Your task to perform on an android device: Search for "corsair k70" on amazon.com, select the first entry, and add it to the cart. Image 0: 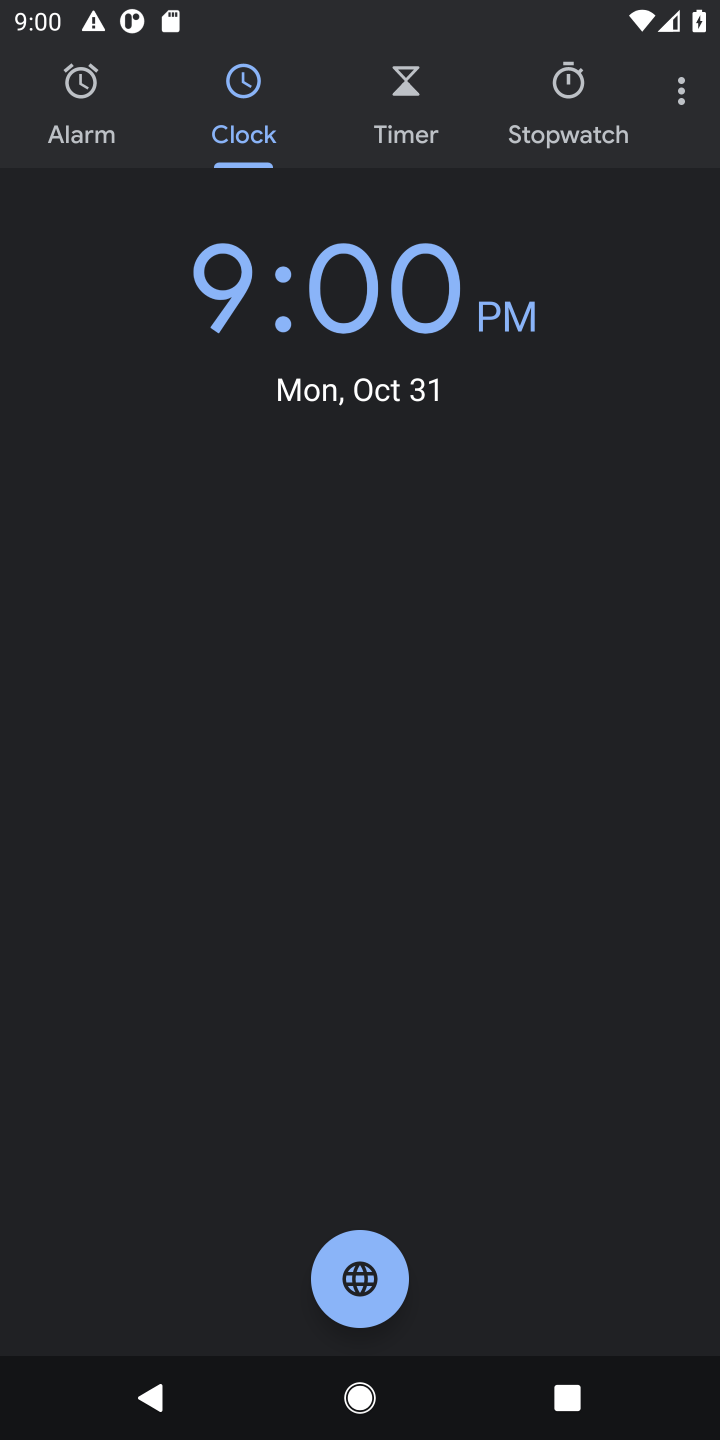
Step 0: press home button
Your task to perform on an android device: Search for "corsair k70" on amazon.com, select the first entry, and add it to the cart. Image 1: 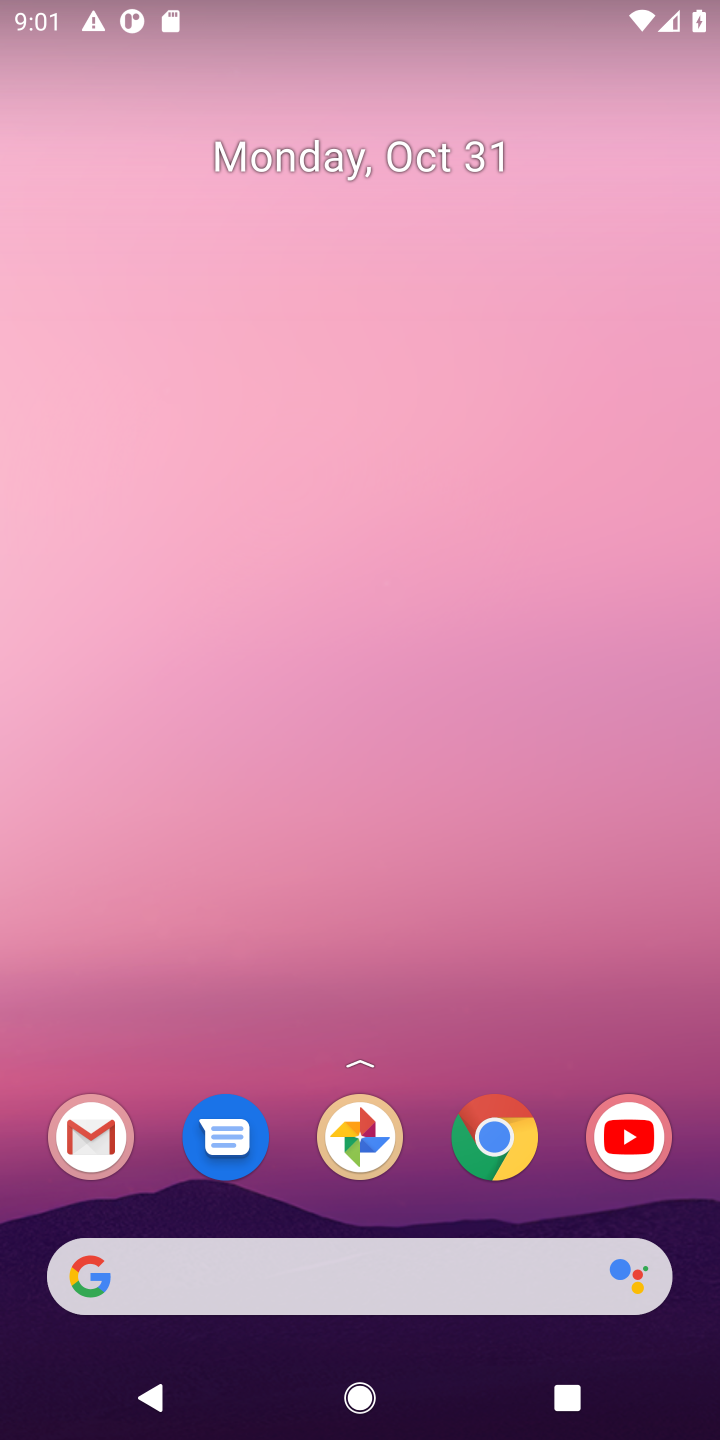
Step 1: click (486, 1142)
Your task to perform on an android device: Search for "corsair k70" on amazon.com, select the first entry, and add it to the cart. Image 2: 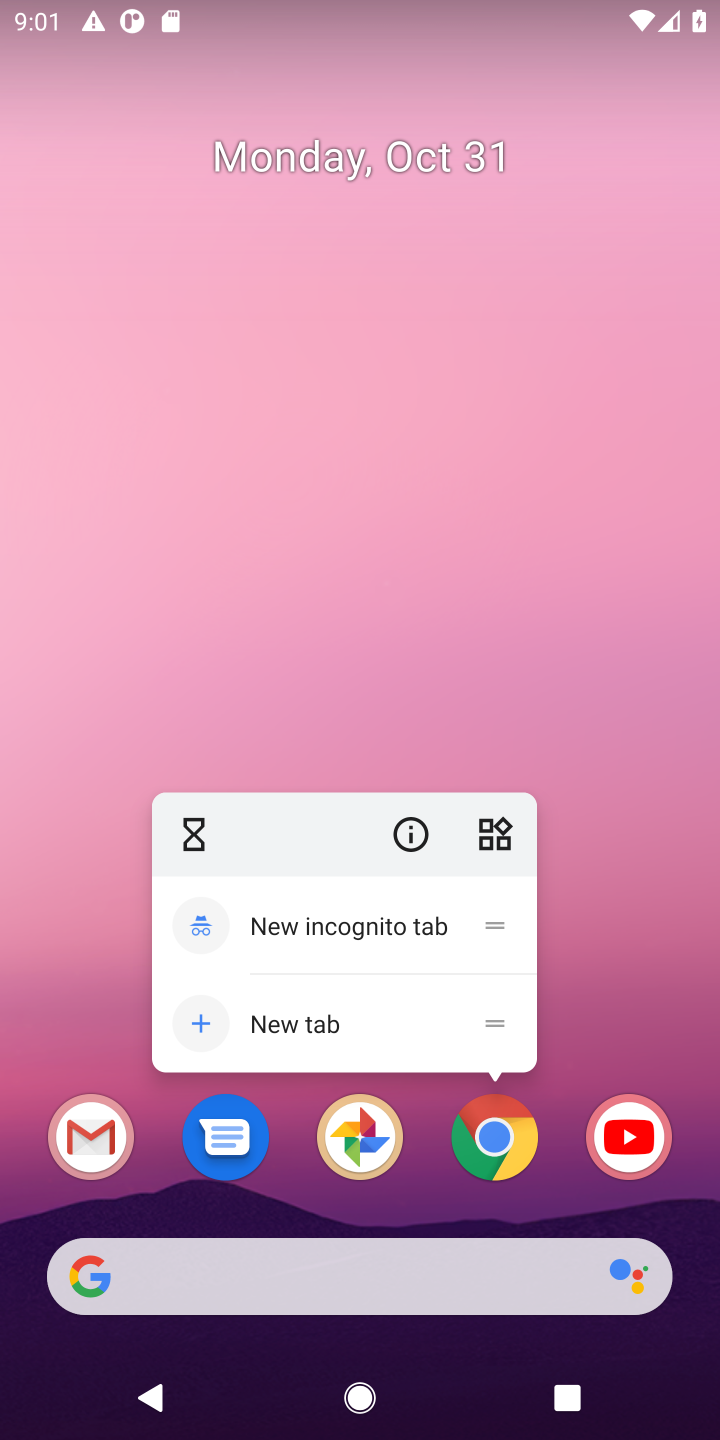
Step 2: click (486, 1142)
Your task to perform on an android device: Search for "corsair k70" on amazon.com, select the first entry, and add it to the cart. Image 3: 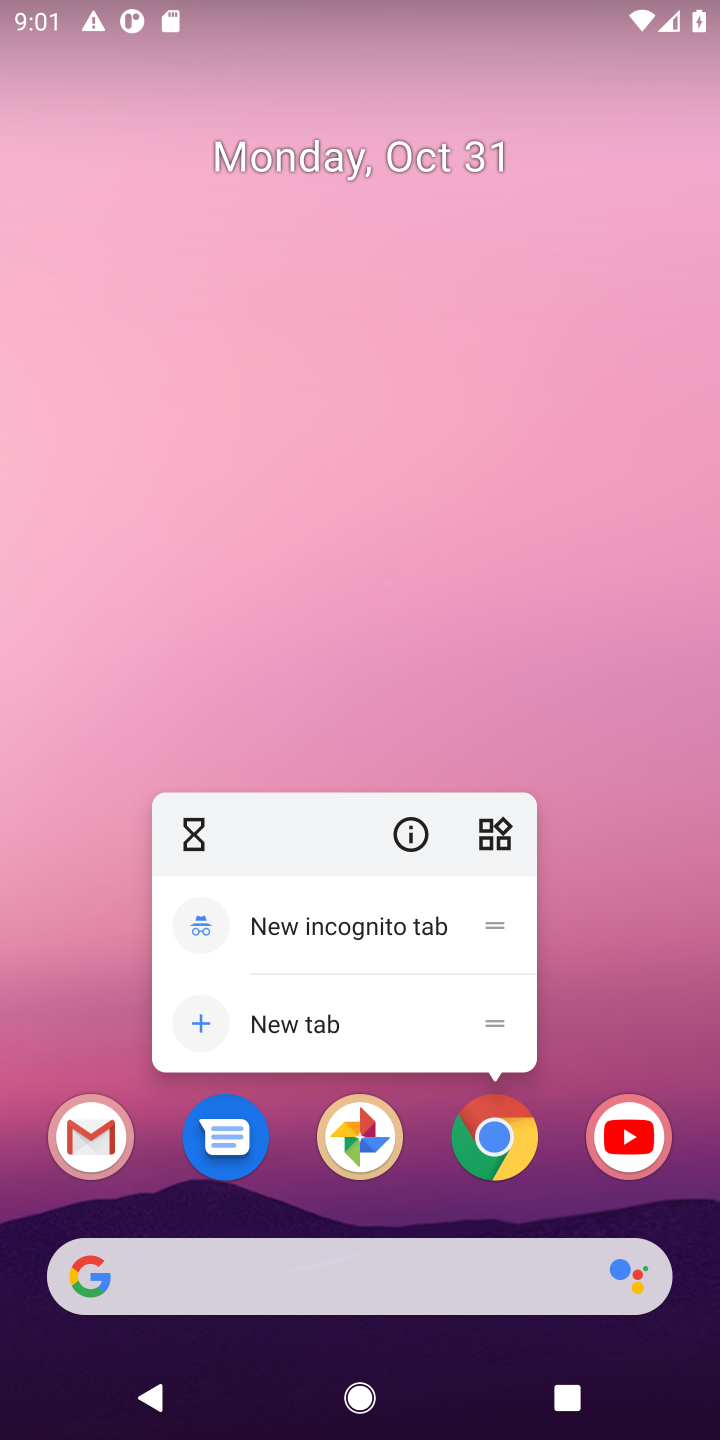
Step 3: click (495, 1163)
Your task to perform on an android device: Search for "corsair k70" on amazon.com, select the first entry, and add it to the cart. Image 4: 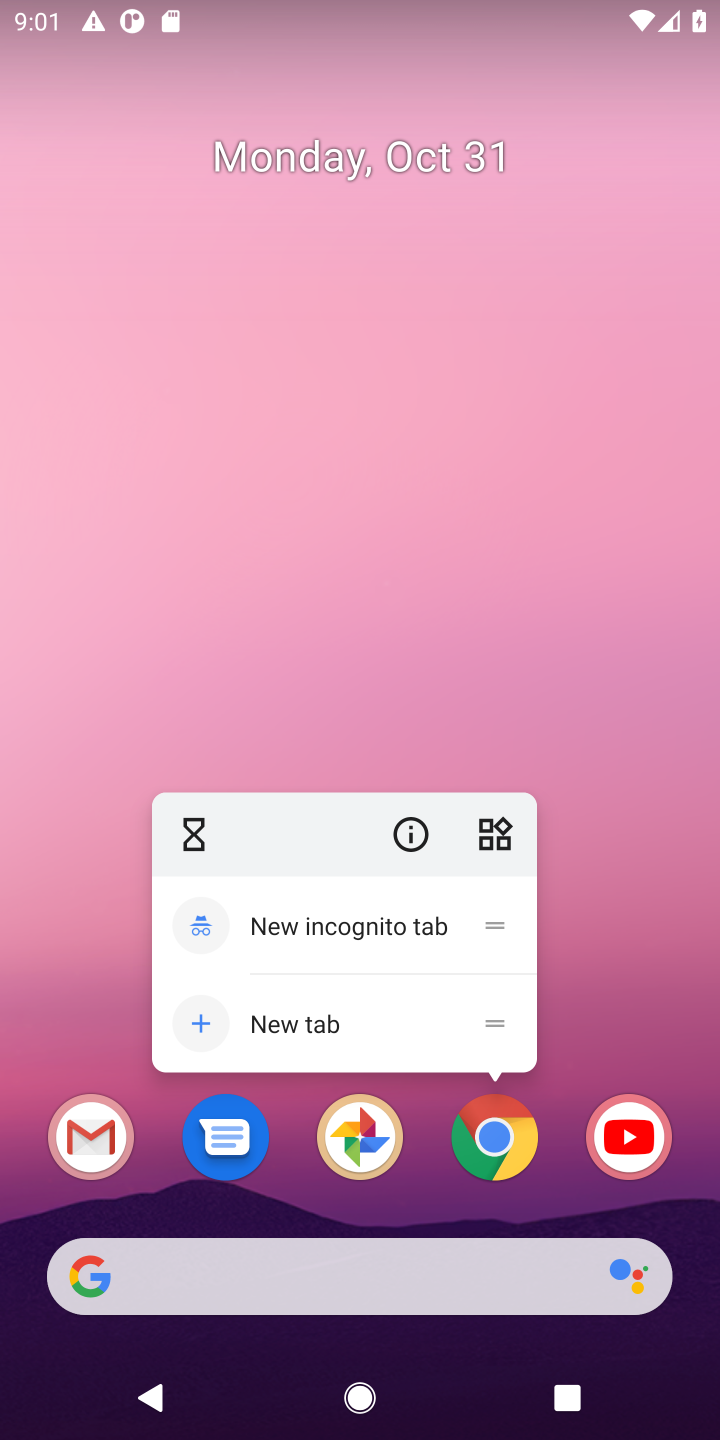
Step 4: click (494, 1129)
Your task to perform on an android device: Search for "corsair k70" on amazon.com, select the first entry, and add it to the cart. Image 5: 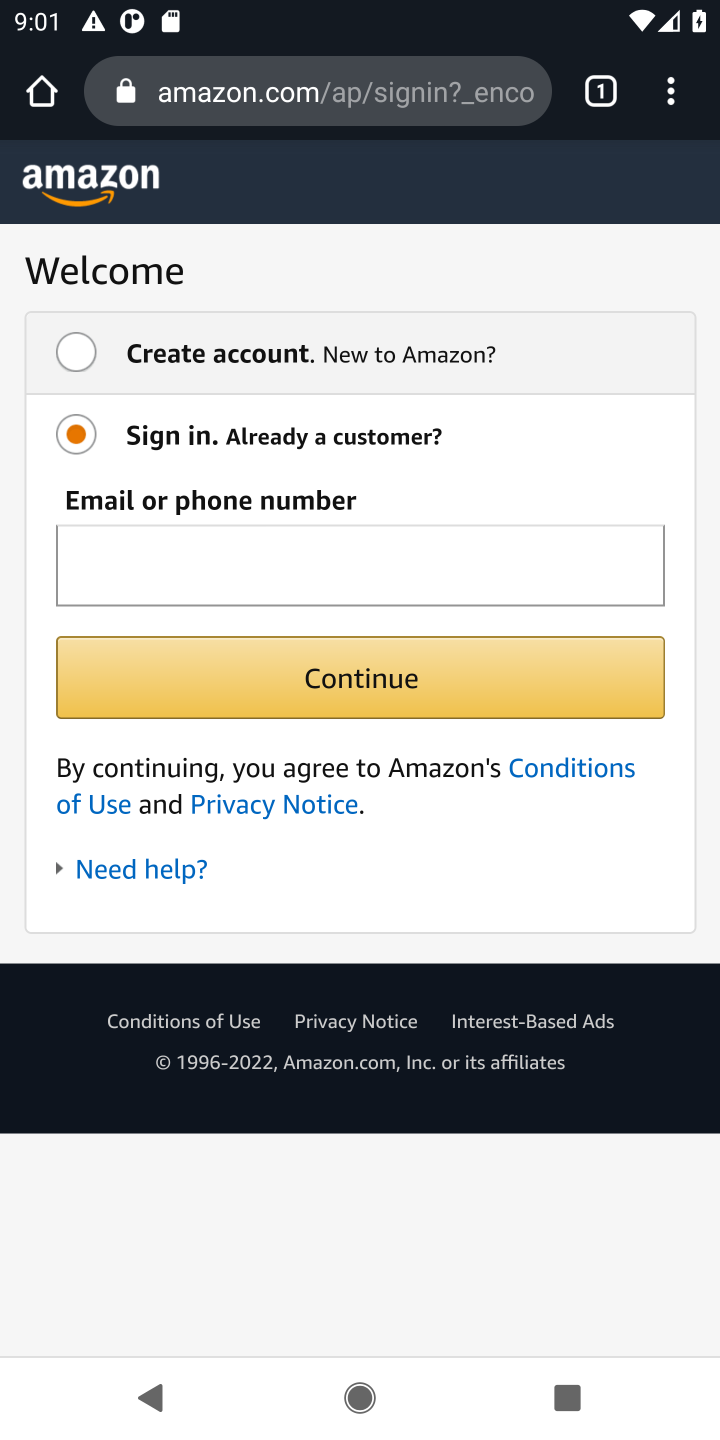
Step 5: press back button
Your task to perform on an android device: Search for "corsair k70" on amazon.com, select the first entry, and add it to the cart. Image 6: 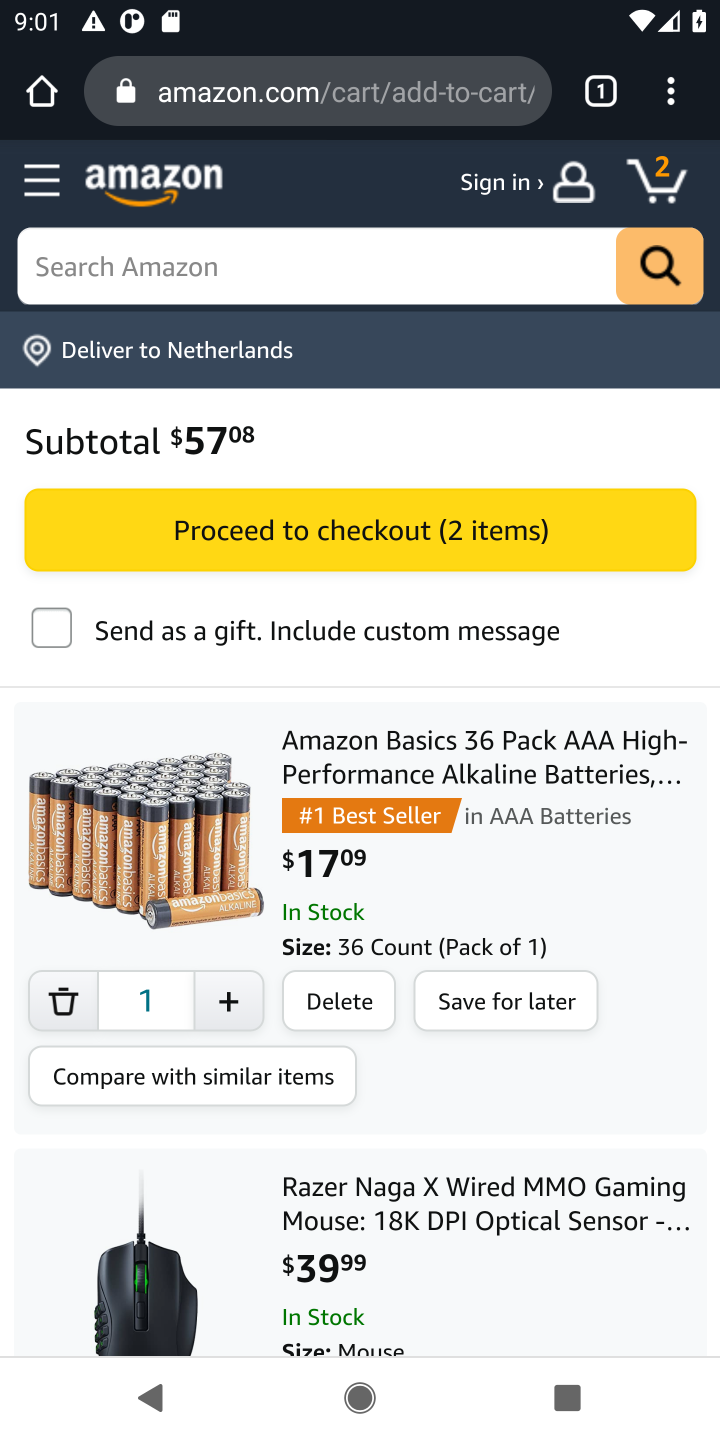
Step 6: click (414, 253)
Your task to perform on an android device: Search for "corsair k70" on amazon.com, select the first entry, and add it to the cart. Image 7: 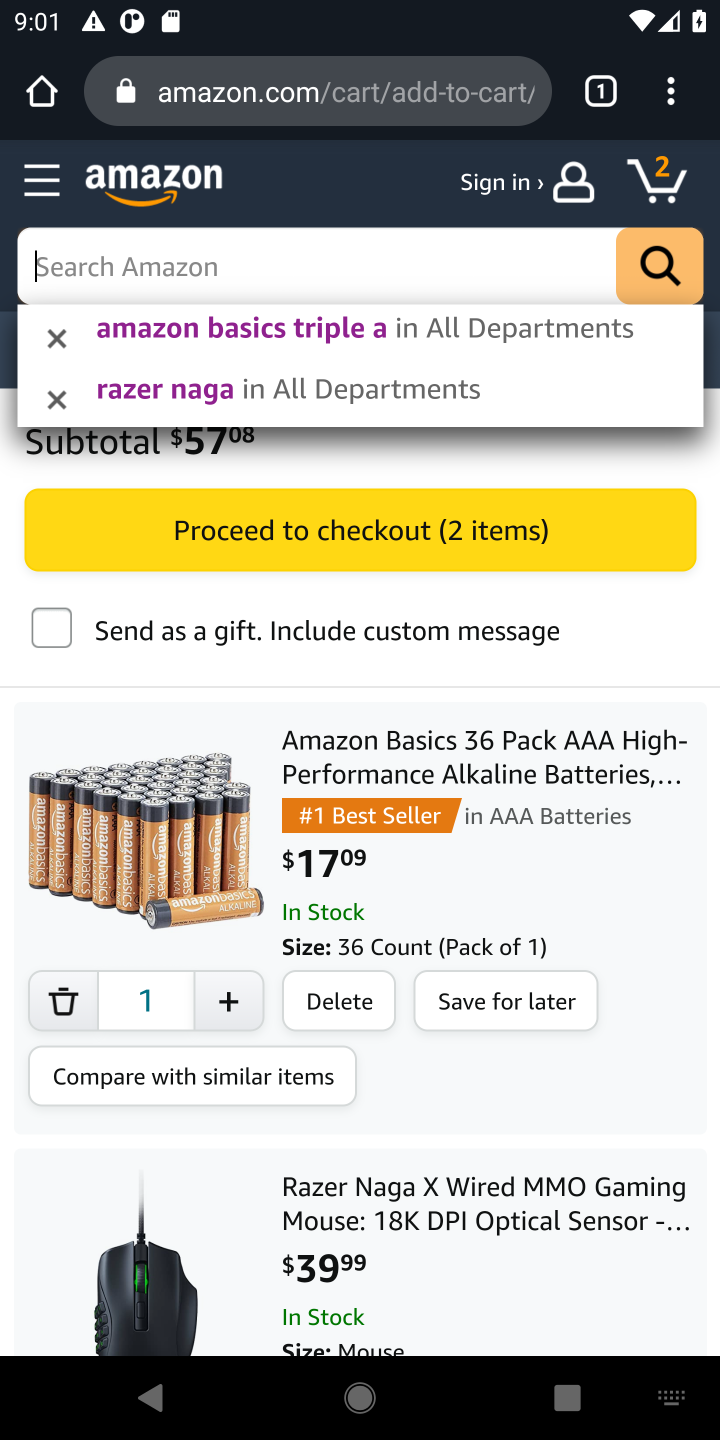
Step 7: type "corsair k70"
Your task to perform on an android device: Search for "corsair k70" on amazon.com, select the first entry, and add it to the cart. Image 8: 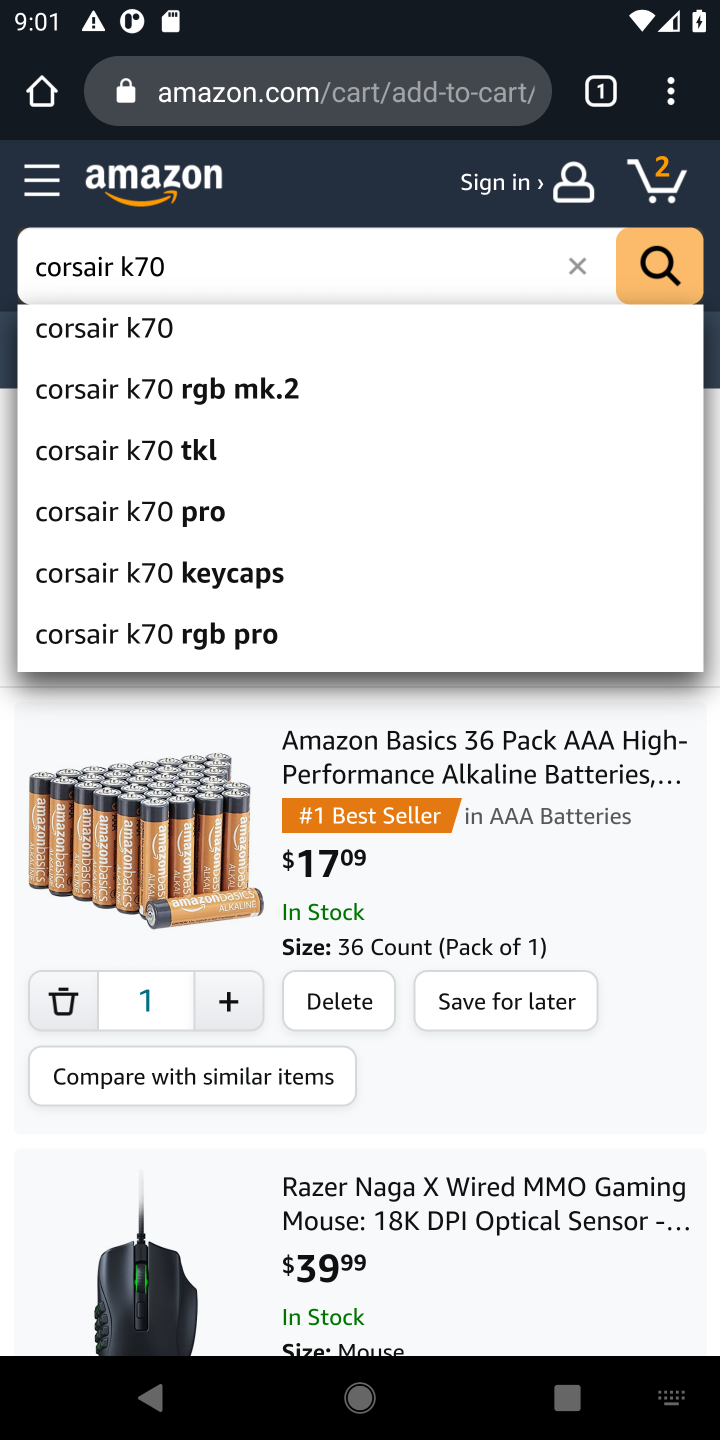
Step 8: click (110, 326)
Your task to perform on an android device: Search for "corsair k70" on amazon.com, select the first entry, and add it to the cart. Image 9: 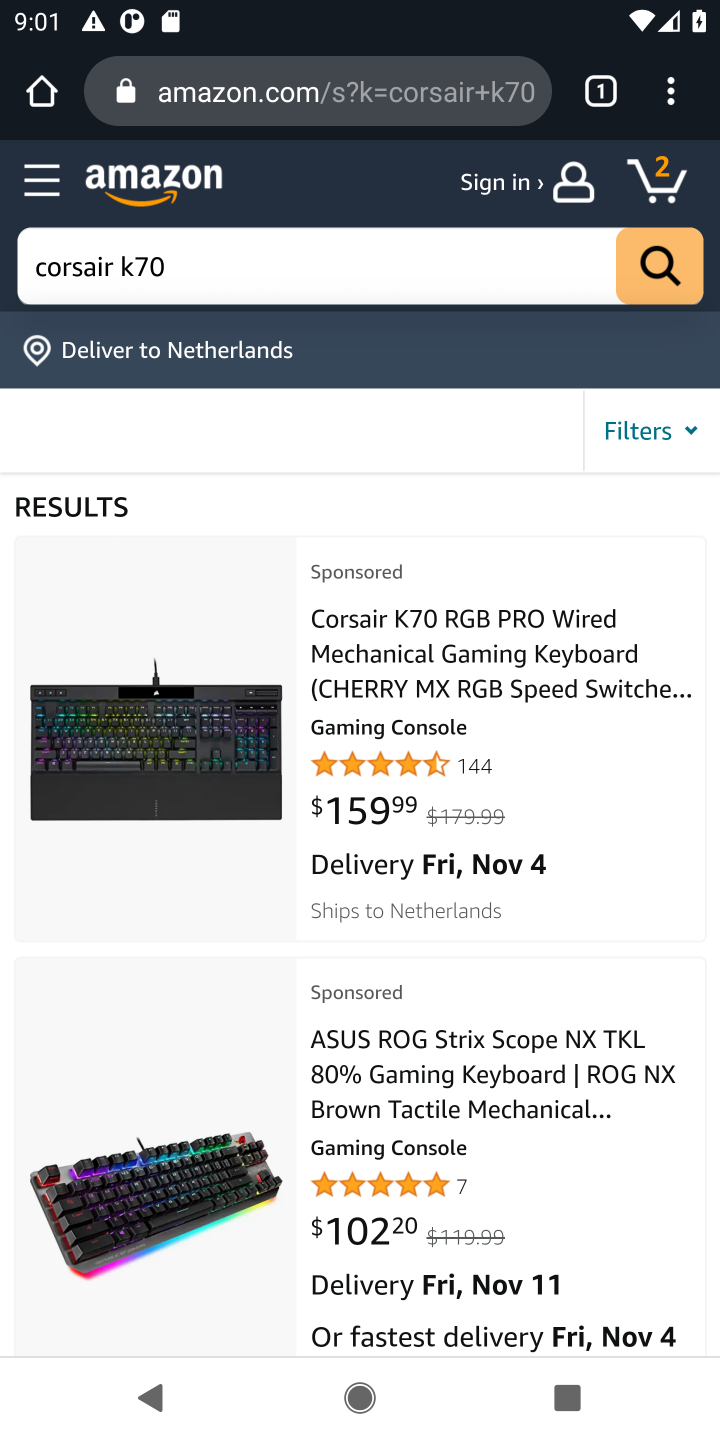
Step 9: click (476, 716)
Your task to perform on an android device: Search for "corsair k70" on amazon.com, select the first entry, and add it to the cart. Image 10: 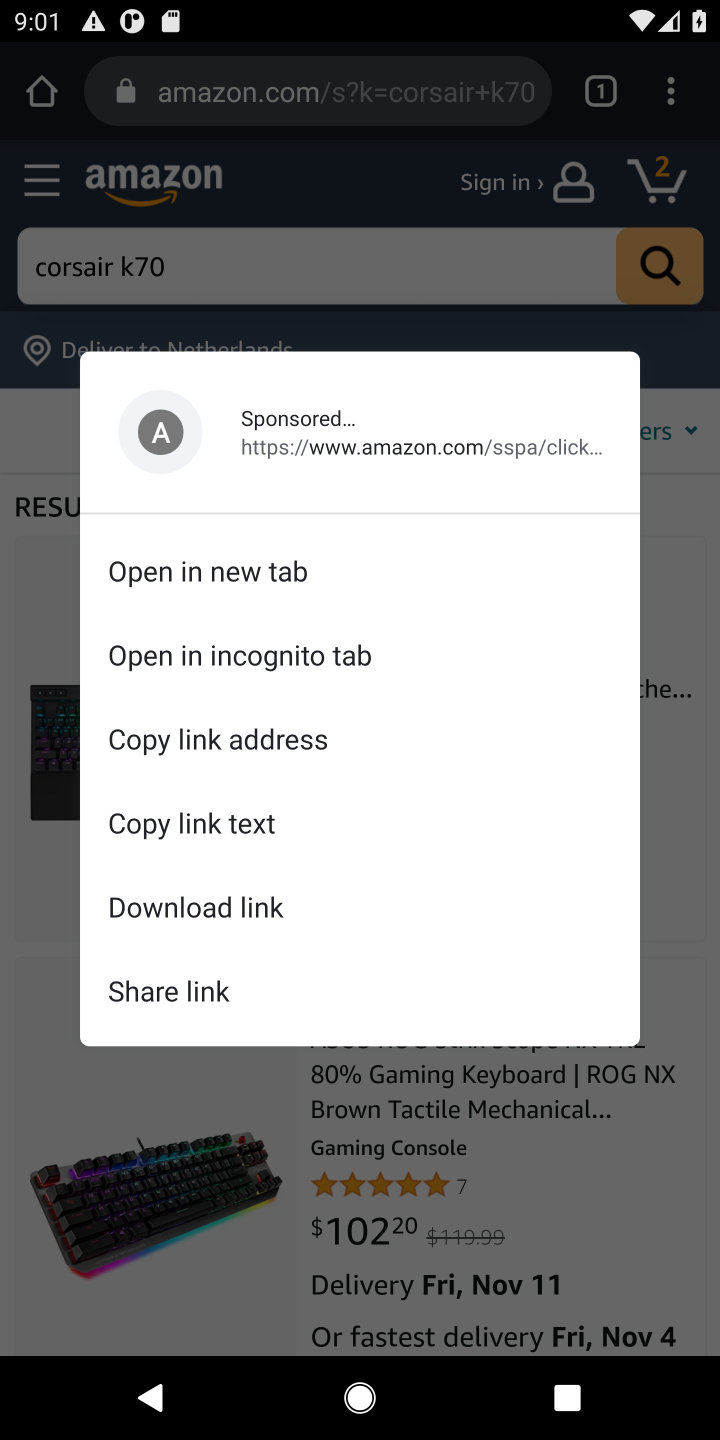
Step 10: click (687, 790)
Your task to perform on an android device: Search for "corsair k70" on amazon.com, select the first entry, and add it to the cart. Image 11: 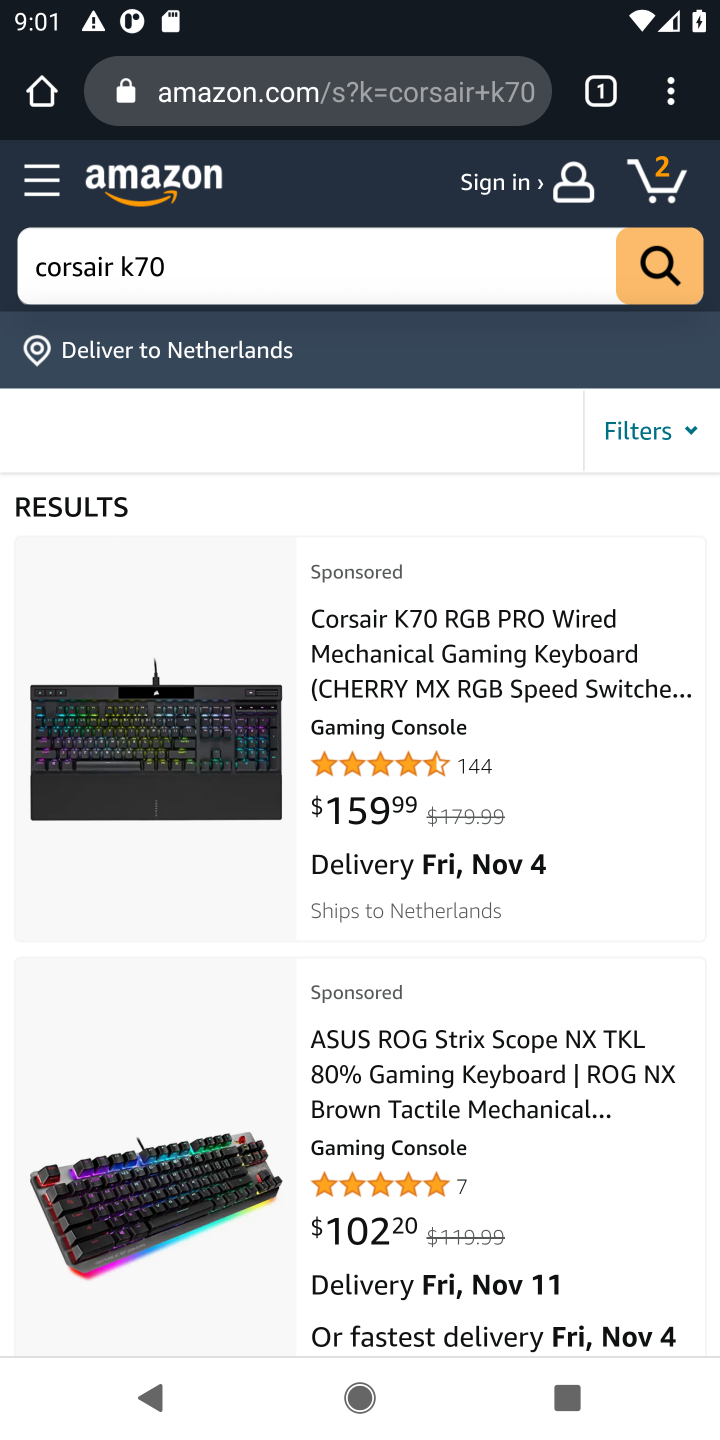
Step 11: click (429, 768)
Your task to perform on an android device: Search for "corsair k70" on amazon.com, select the first entry, and add it to the cart. Image 12: 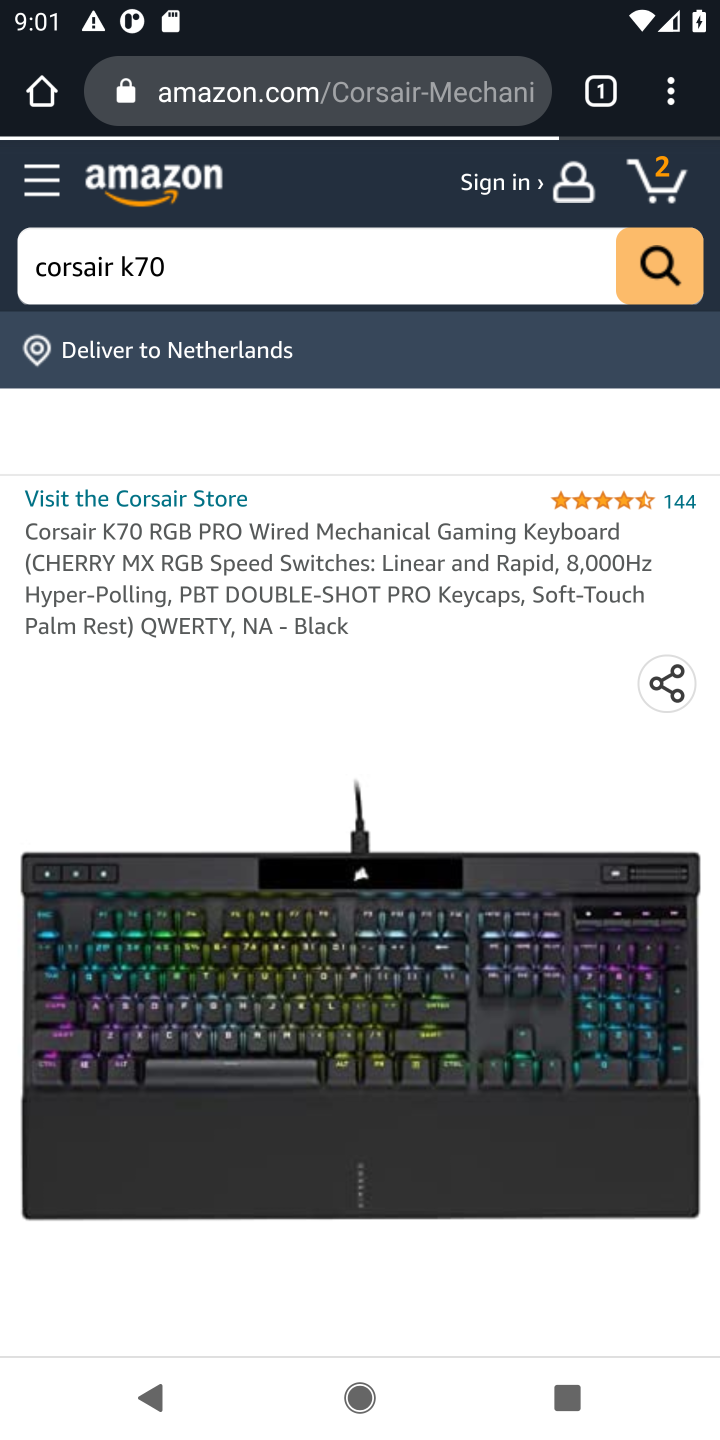
Step 12: drag from (340, 956) to (364, 589)
Your task to perform on an android device: Search for "corsair k70" on amazon.com, select the first entry, and add it to the cart. Image 13: 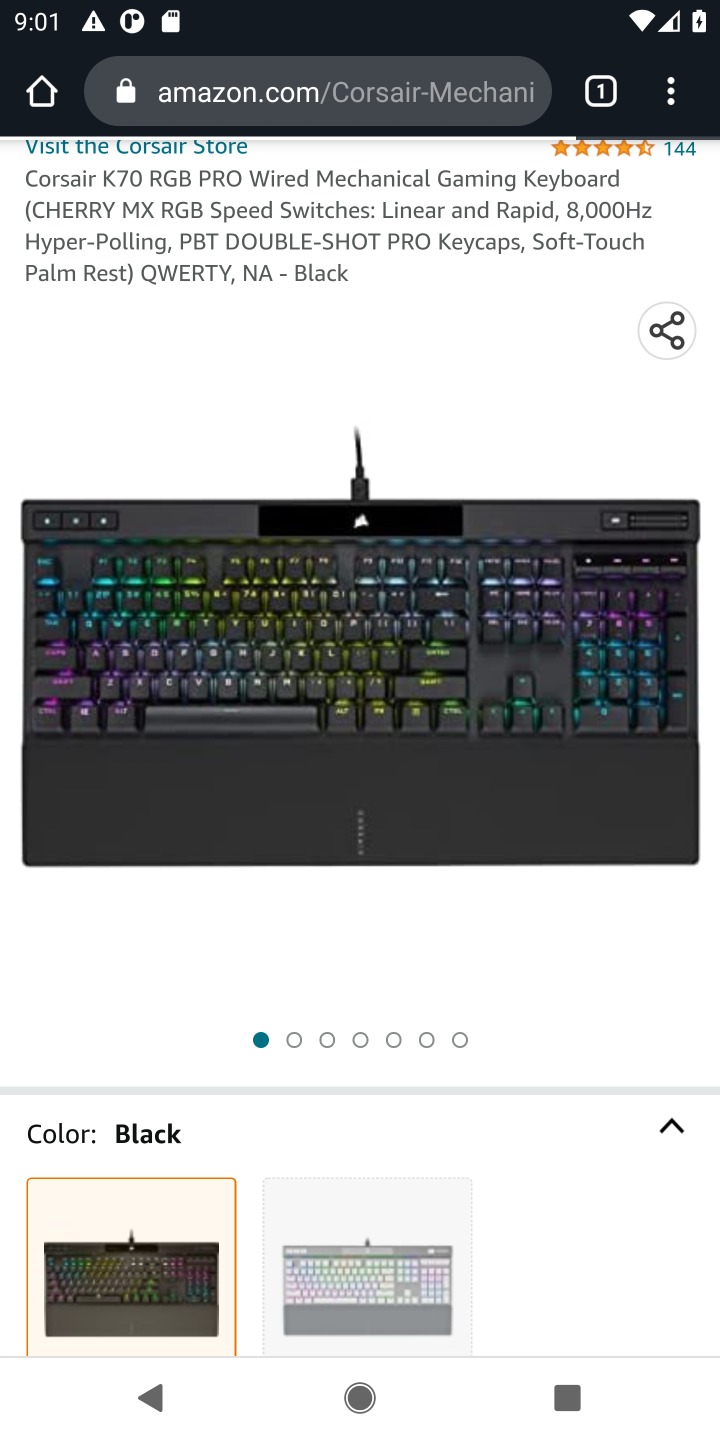
Step 13: drag from (338, 854) to (377, 452)
Your task to perform on an android device: Search for "corsair k70" on amazon.com, select the first entry, and add it to the cart. Image 14: 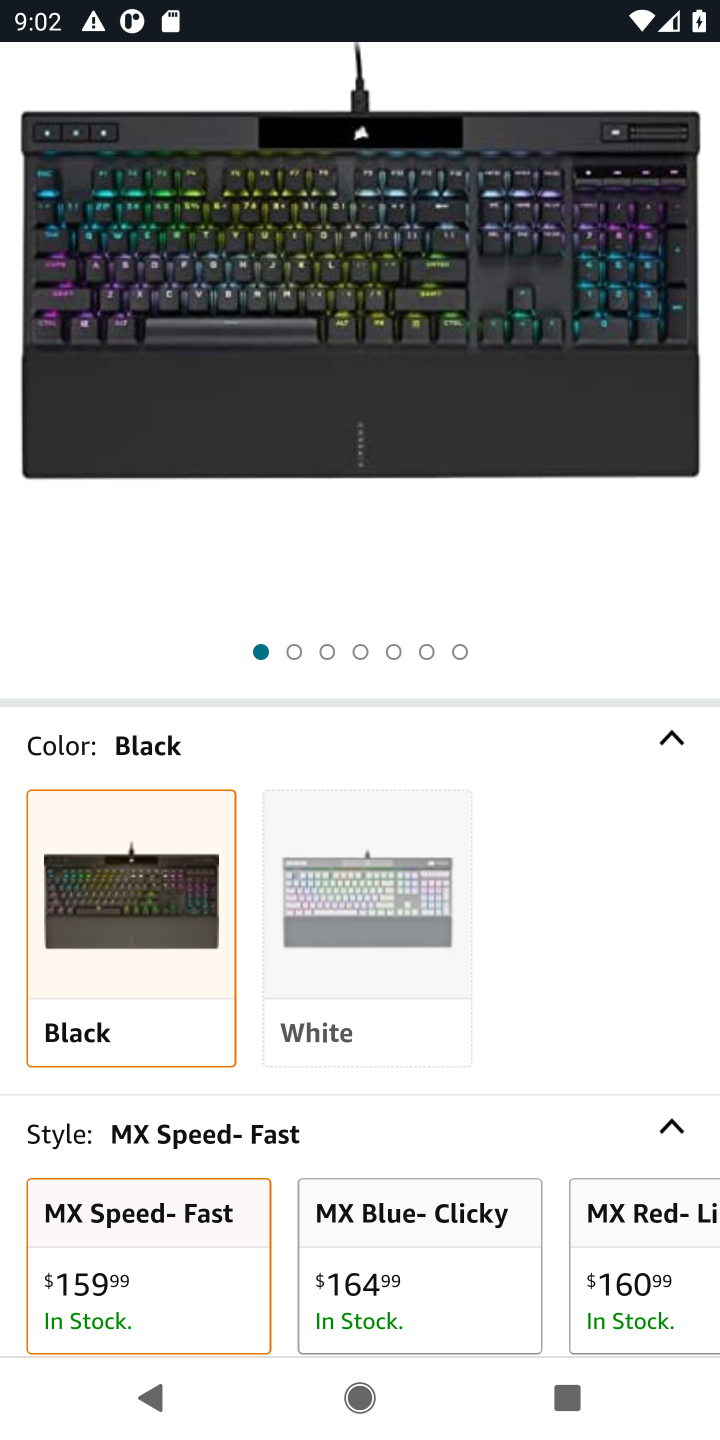
Step 14: drag from (356, 932) to (364, 479)
Your task to perform on an android device: Search for "corsair k70" on amazon.com, select the first entry, and add it to the cart. Image 15: 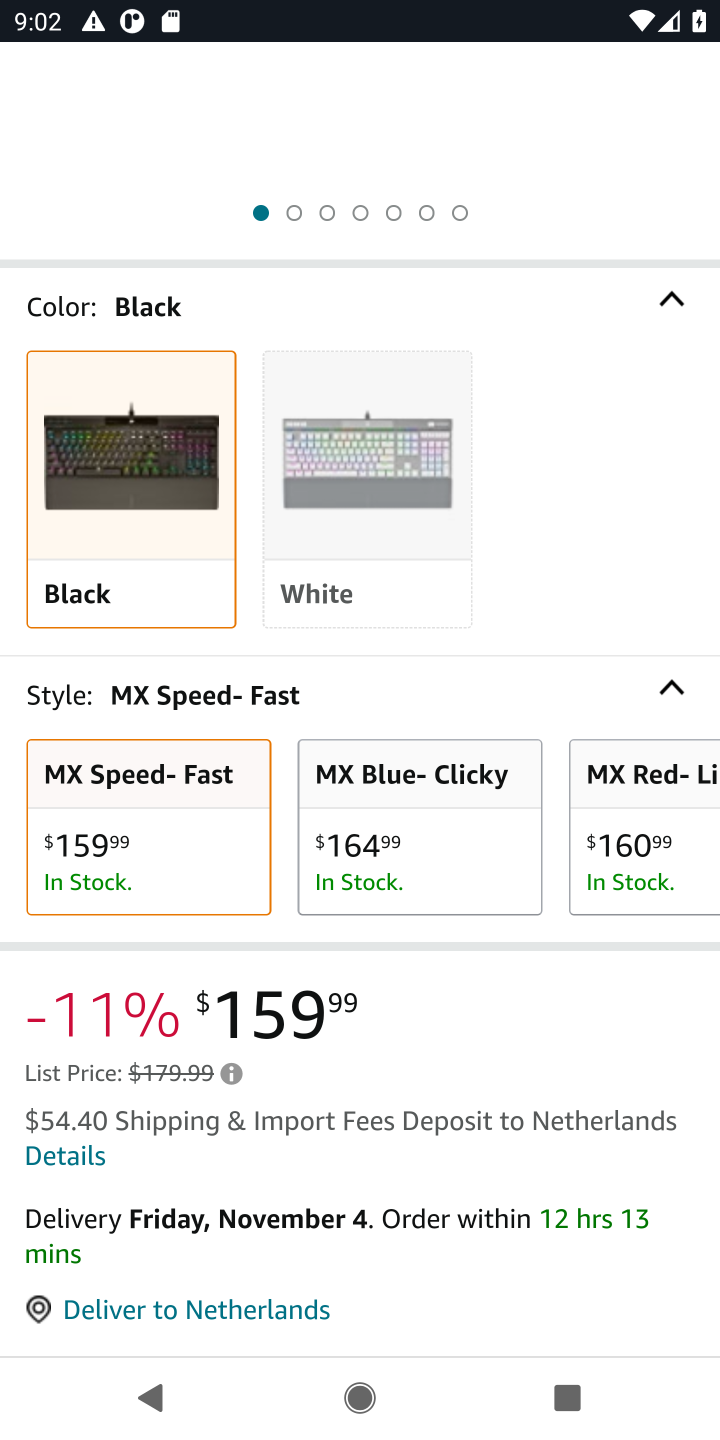
Step 15: drag from (305, 1093) to (355, 556)
Your task to perform on an android device: Search for "corsair k70" on amazon.com, select the first entry, and add it to the cart. Image 16: 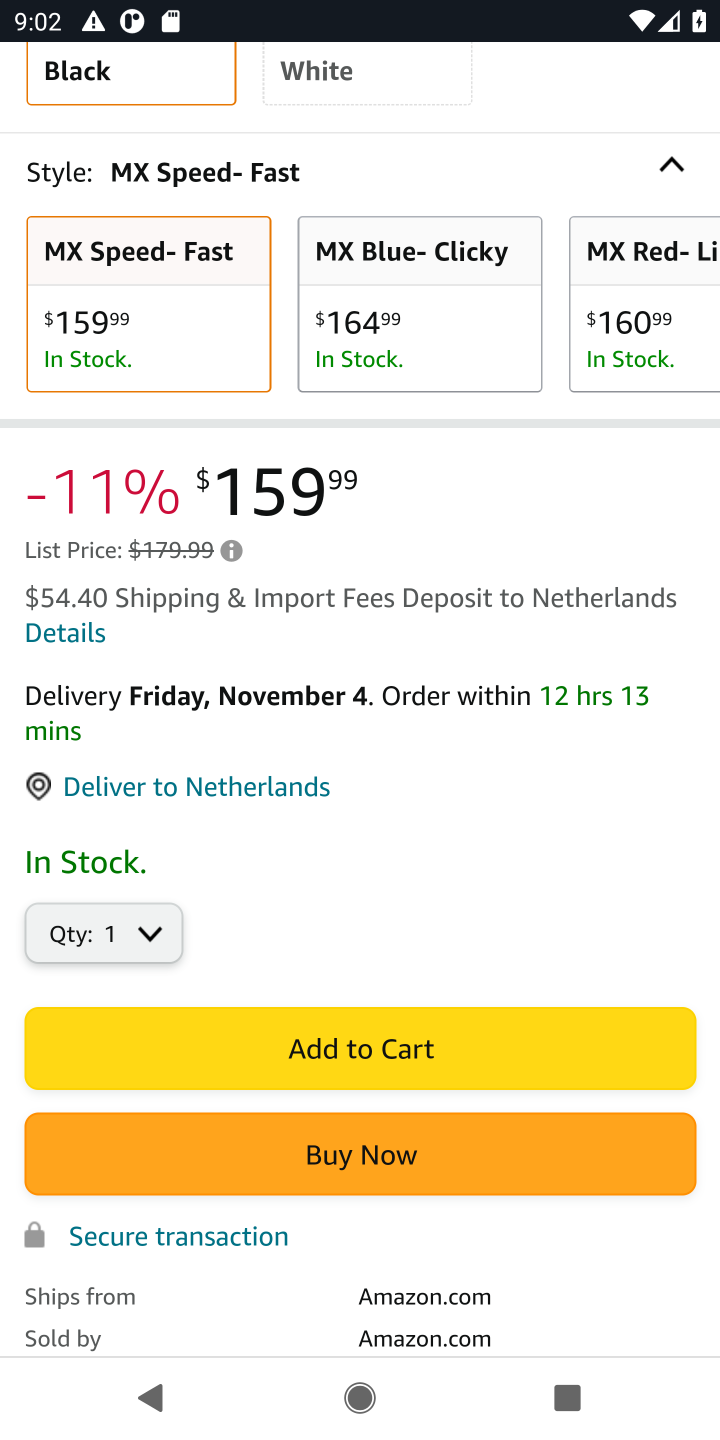
Step 16: click (352, 1033)
Your task to perform on an android device: Search for "corsair k70" on amazon.com, select the first entry, and add it to the cart. Image 17: 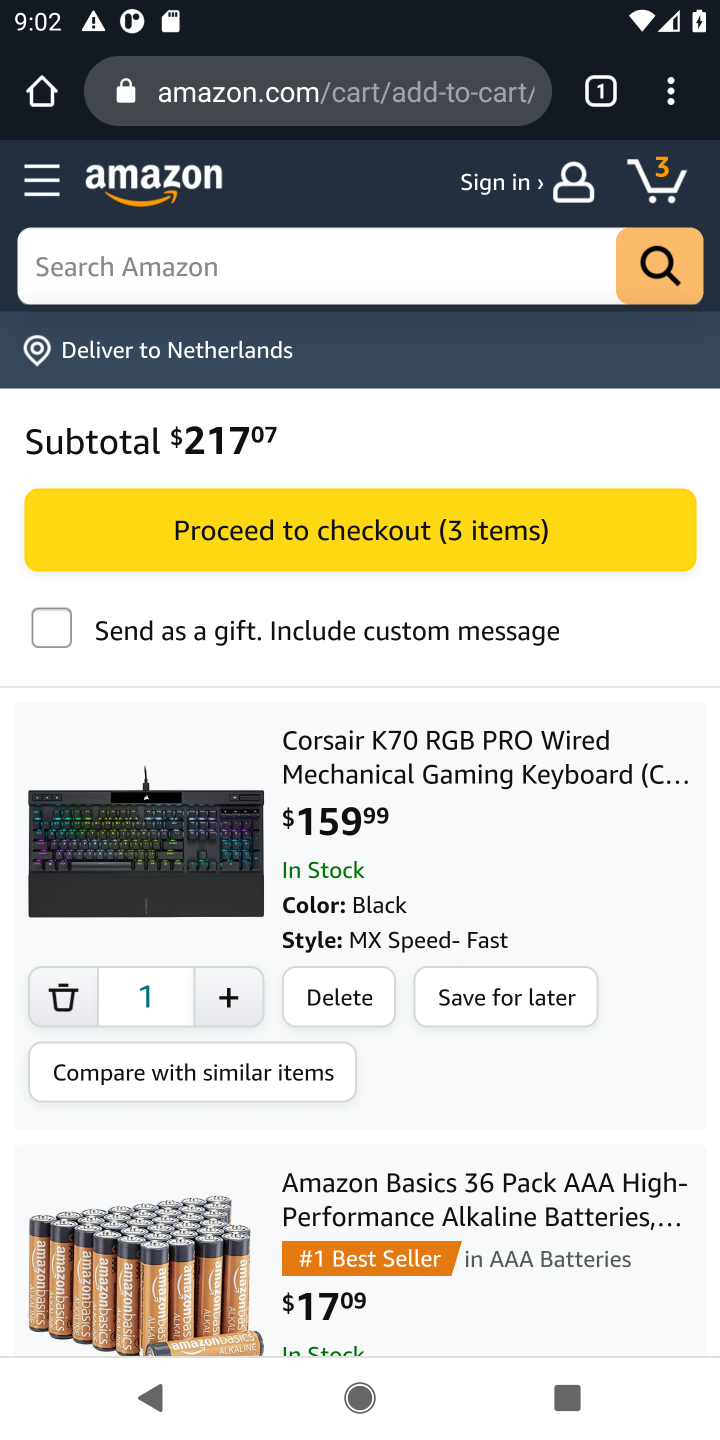
Step 17: task complete